Your task to perform on an android device: Go to ESPN.com Image 0: 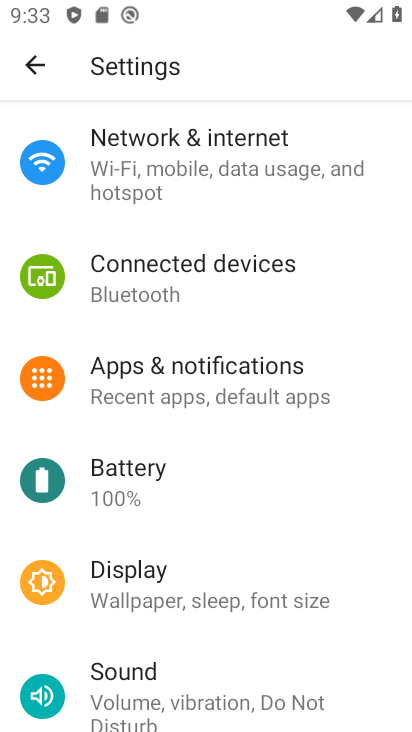
Step 0: press home button
Your task to perform on an android device: Go to ESPN.com Image 1: 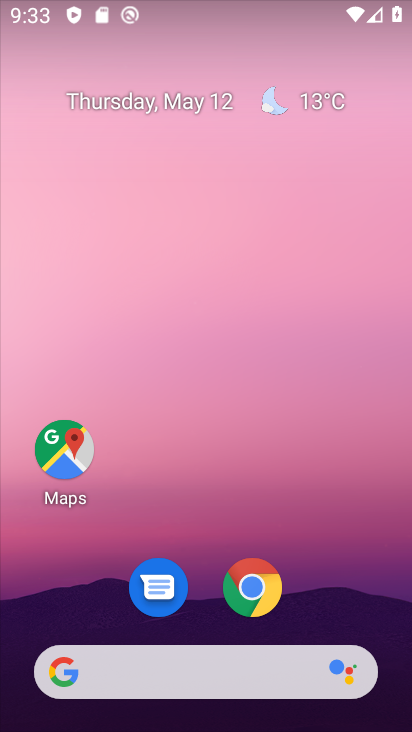
Step 1: click (237, 597)
Your task to perform on an android device: Go to ESPN.com Image 2: 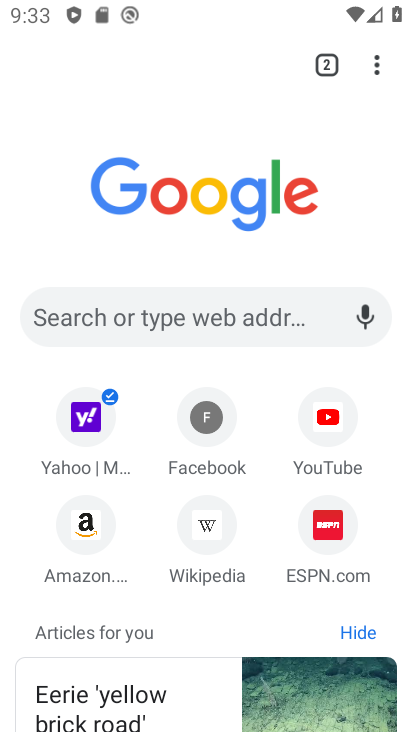
Step 2: drag from (395, 467) to (411, 226)
Your task to perform on an android device: Go to ESPN.com Image 3: 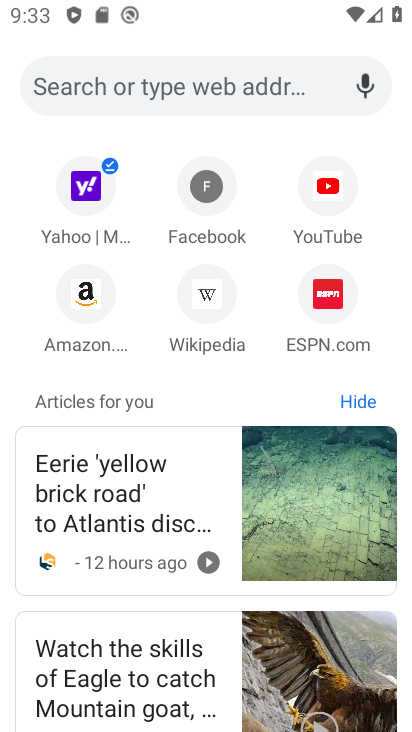
Step 3: click (336, 317)
Your task to perform on an android device: Go to ESPN.com Image 4: 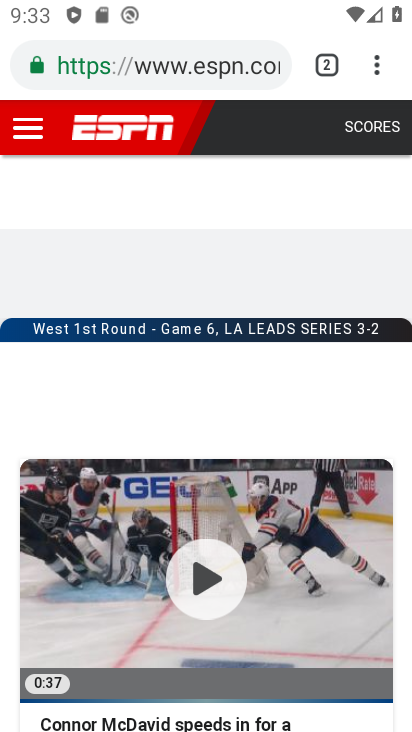
Step 4: task complete